Your task to perform on an android device: Is it going to rain this weekend? Image 0: 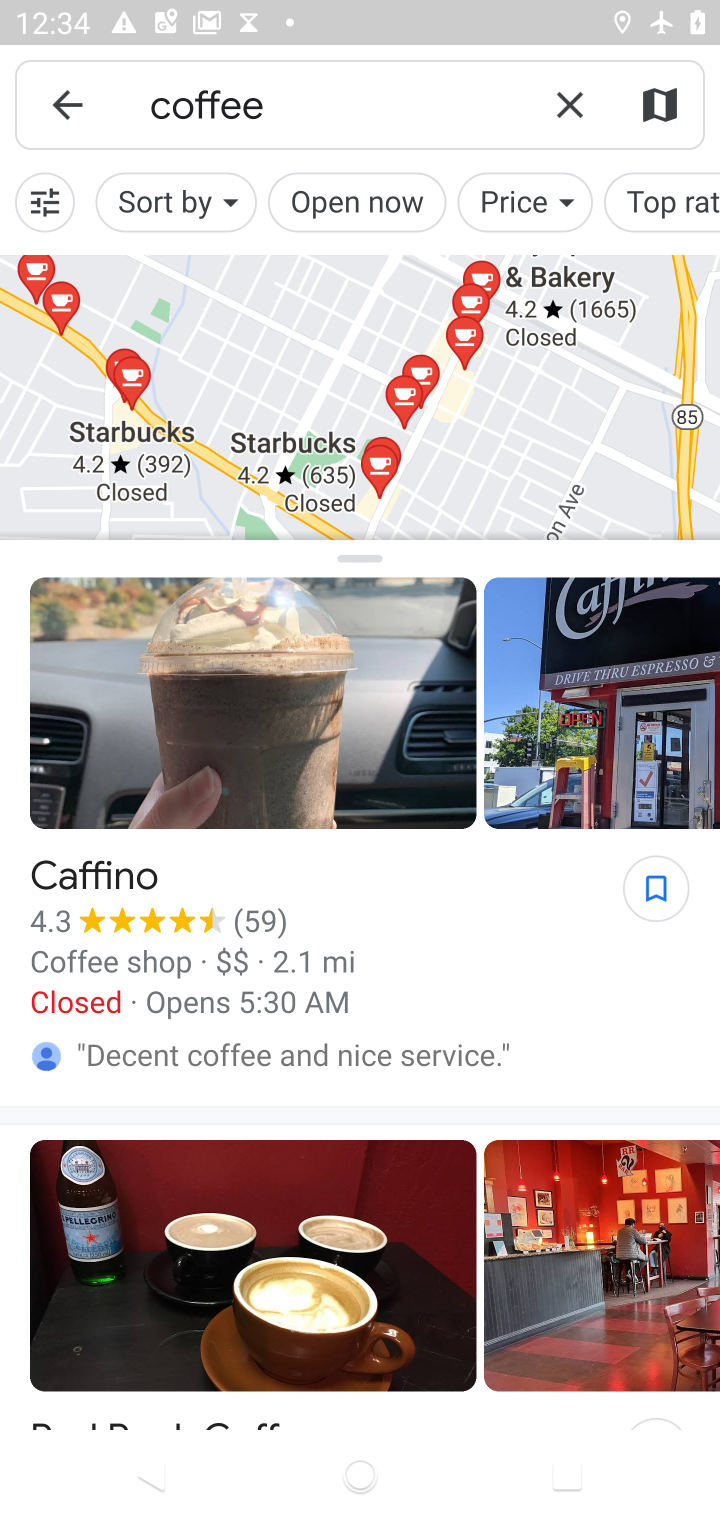
Step 0: press home button
Your task to perform on an android device: Is it going to rain this weekend? Image 1: 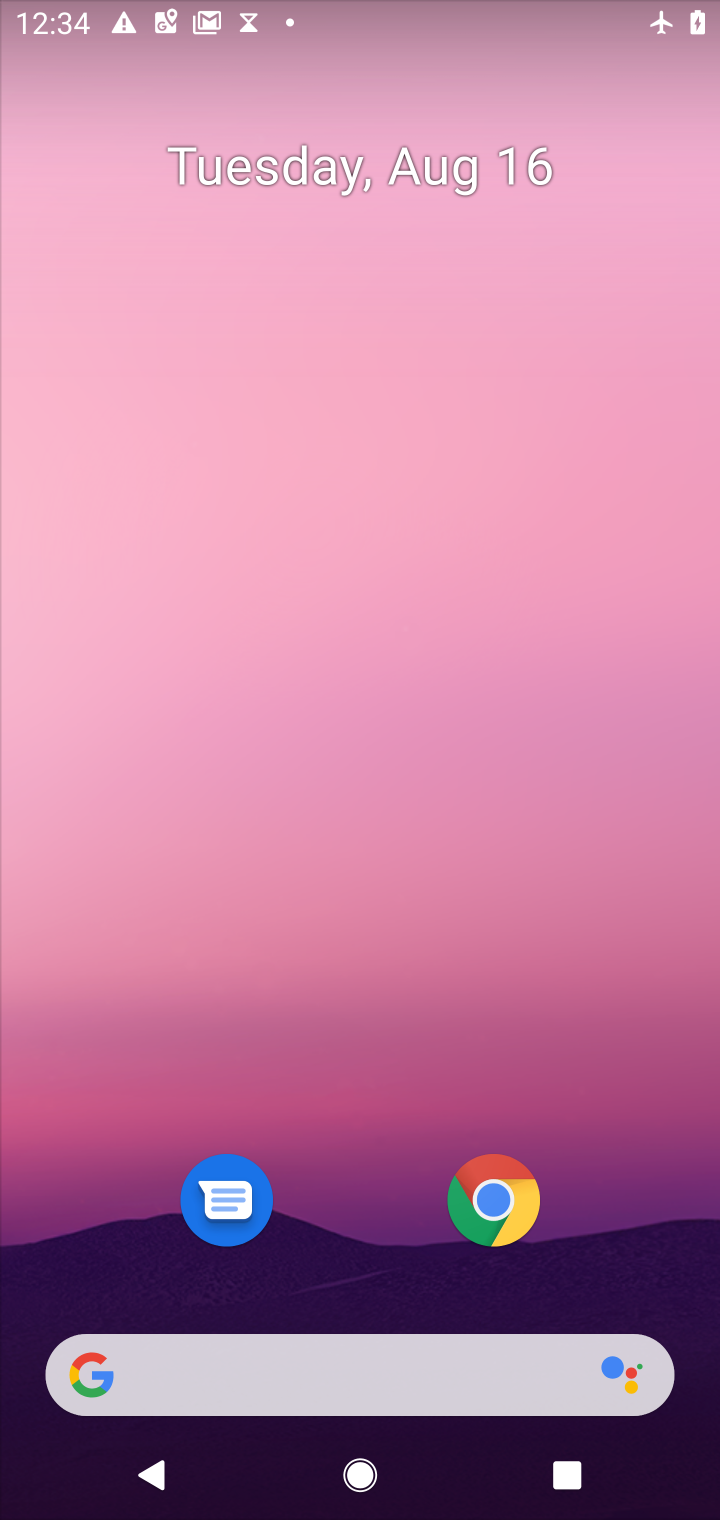
Step 1: drag from (413, 931) to (439, 304)
Your task to perform on an android device: Is it going to rain this weekend? Image 2: 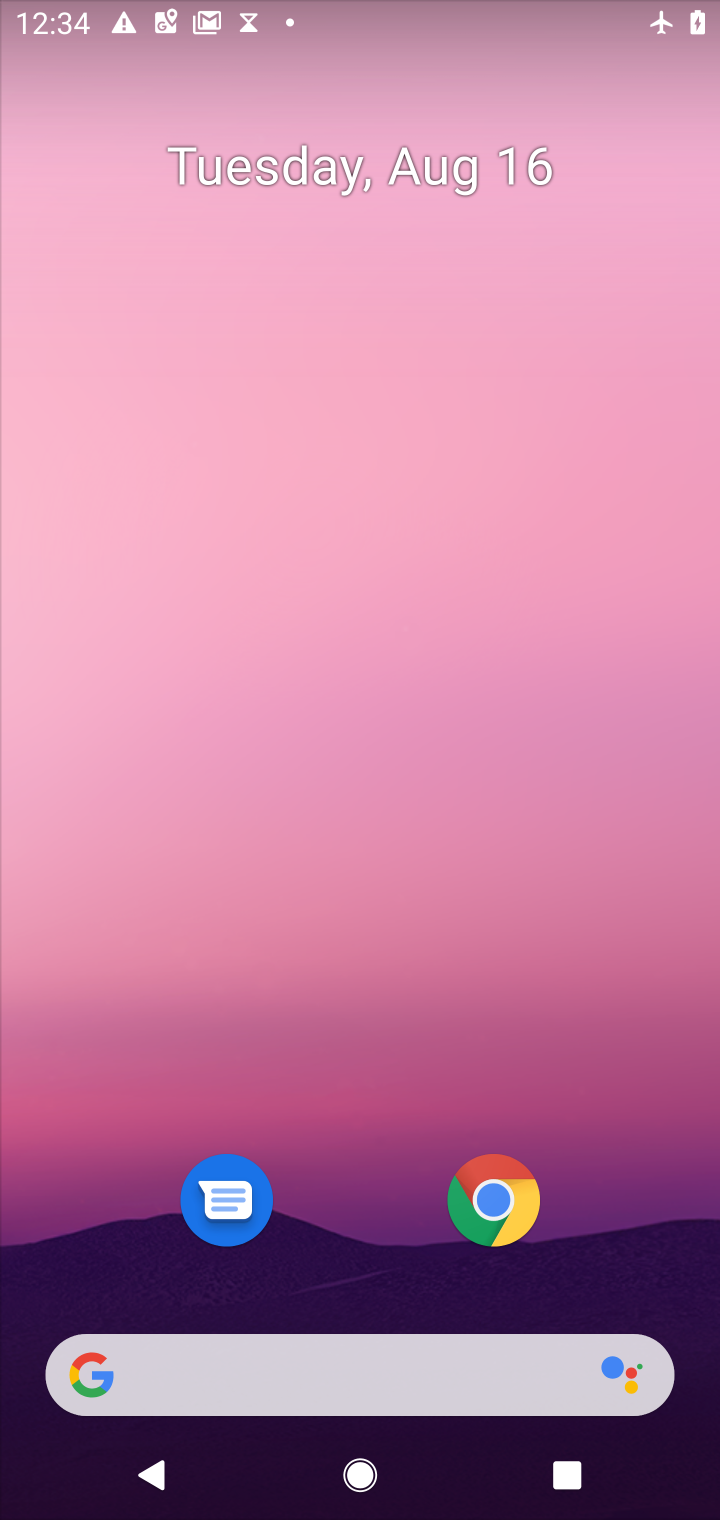
Step 2: drag from (357, 1114) to (408, 321)
Your task to perform on an android device: Is it going to rain this weekend? Image 3: 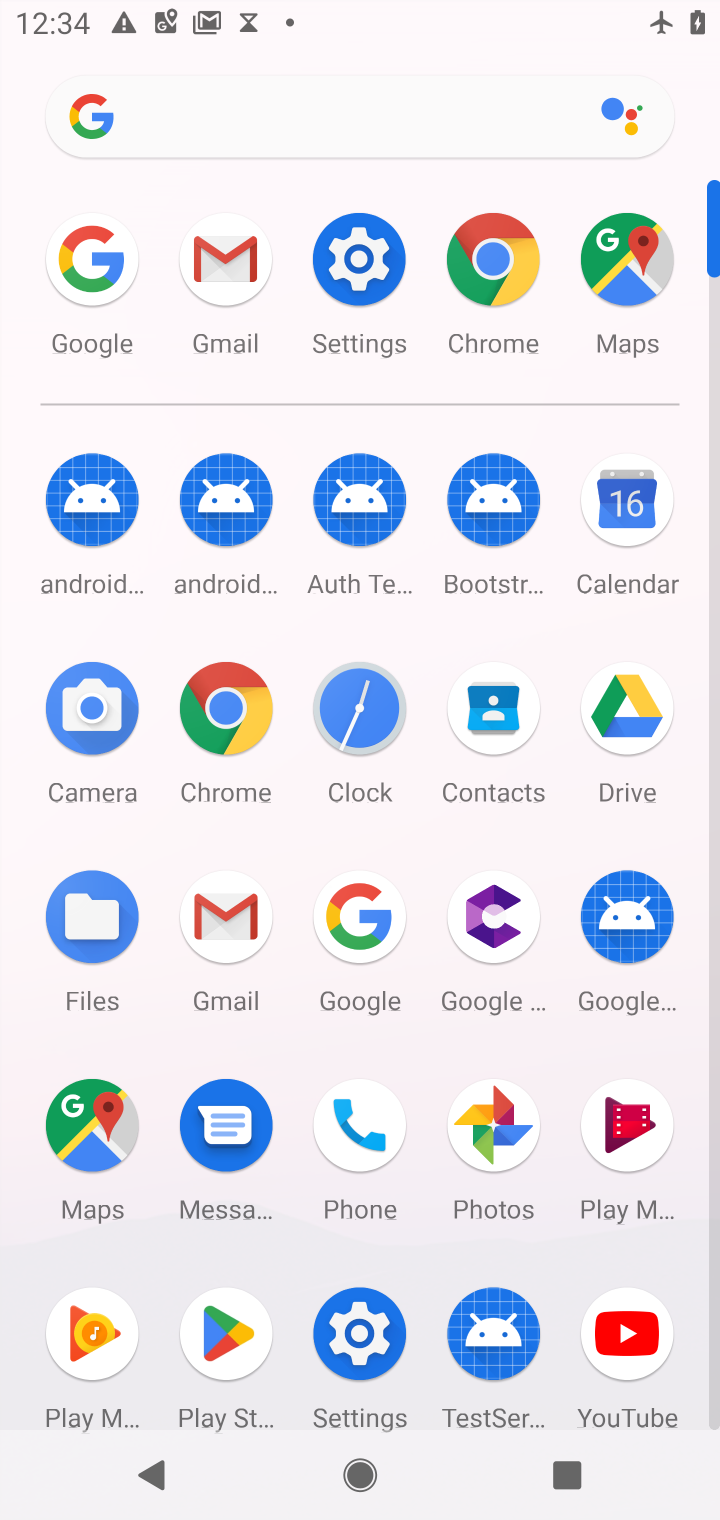
Step 3: click (115, 259)
Your task to perform on an android device: Is it going to rain this weekend? Image 4: 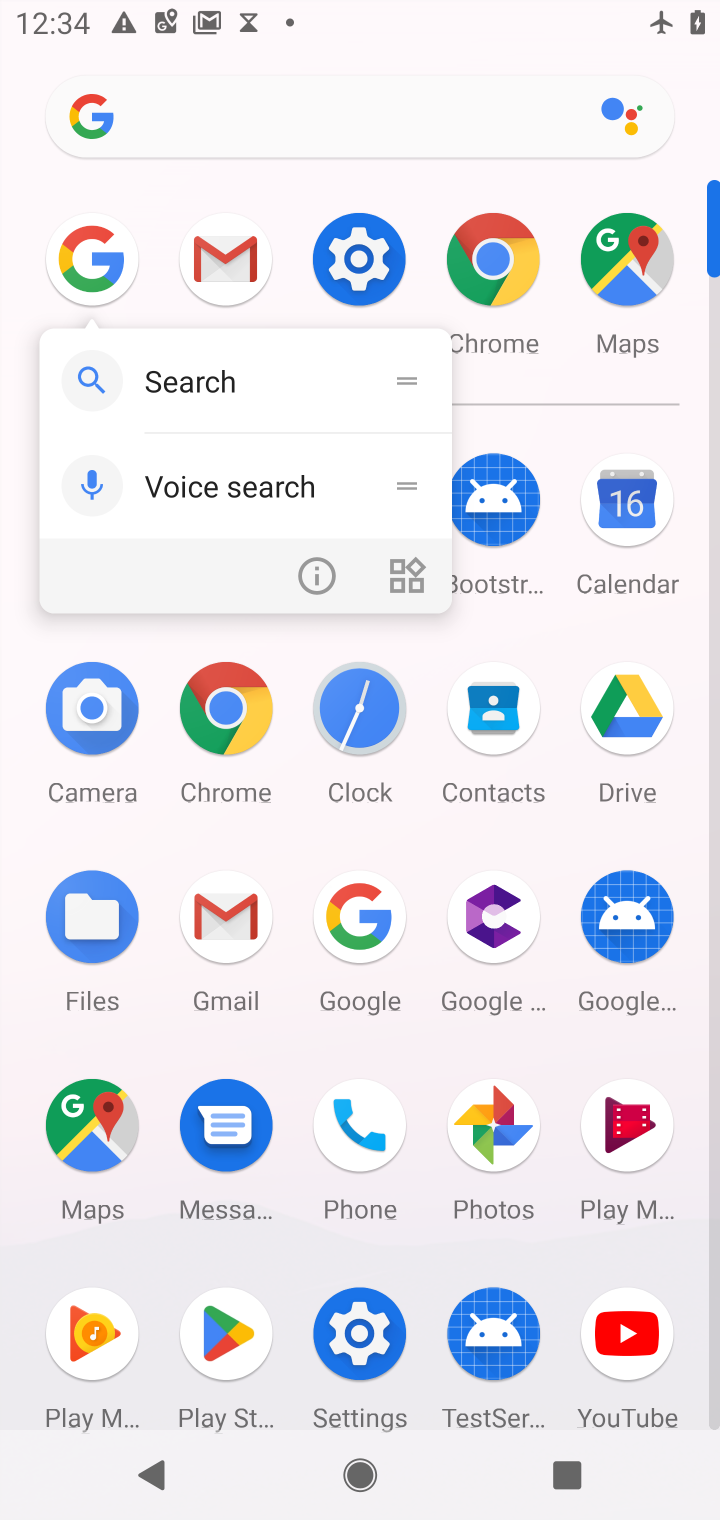
Step 4: click (115, 259)
Your task to perform on an android device: Is it going to rain this weekend? Image 5: 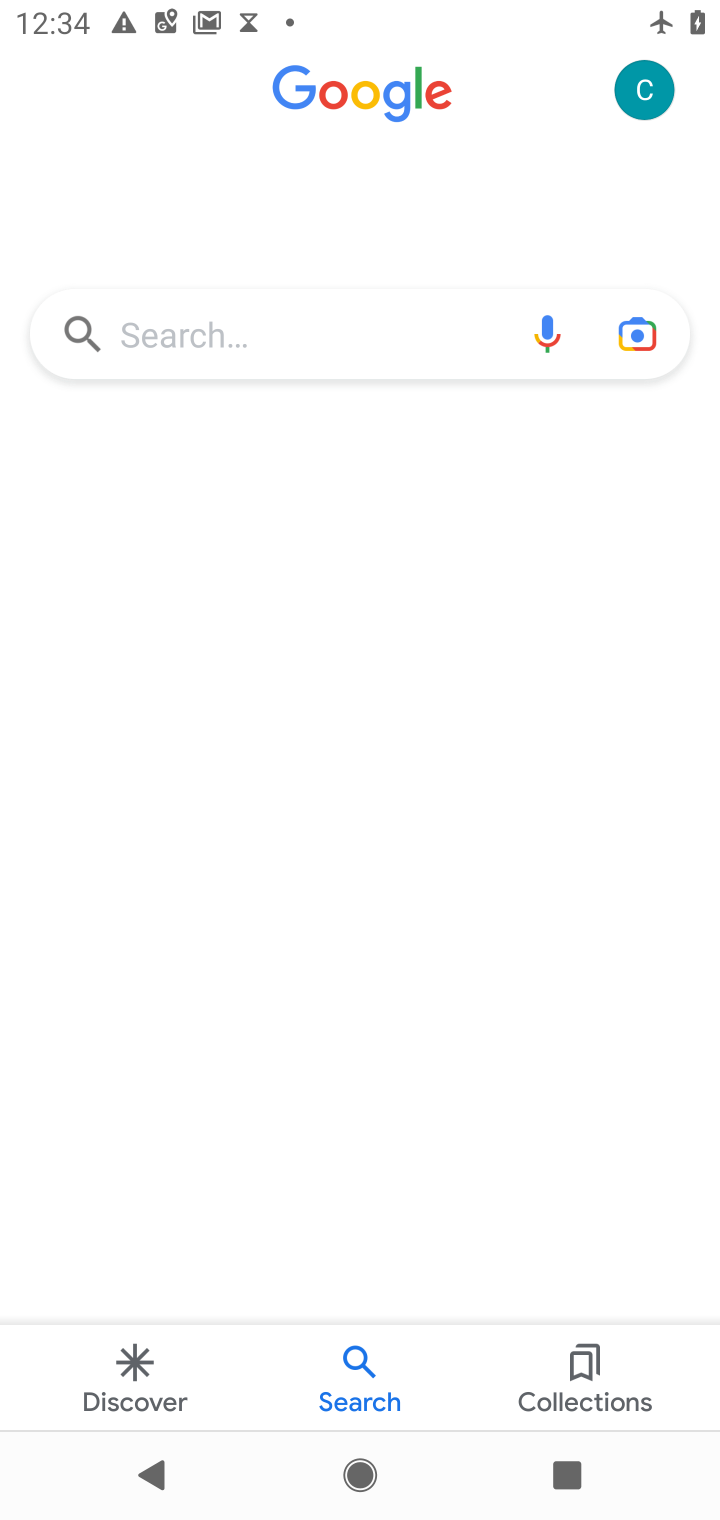
Step 5: click (237, 325)
Your task to perform on an android device: Is it going to rain this weekend? Image 6: 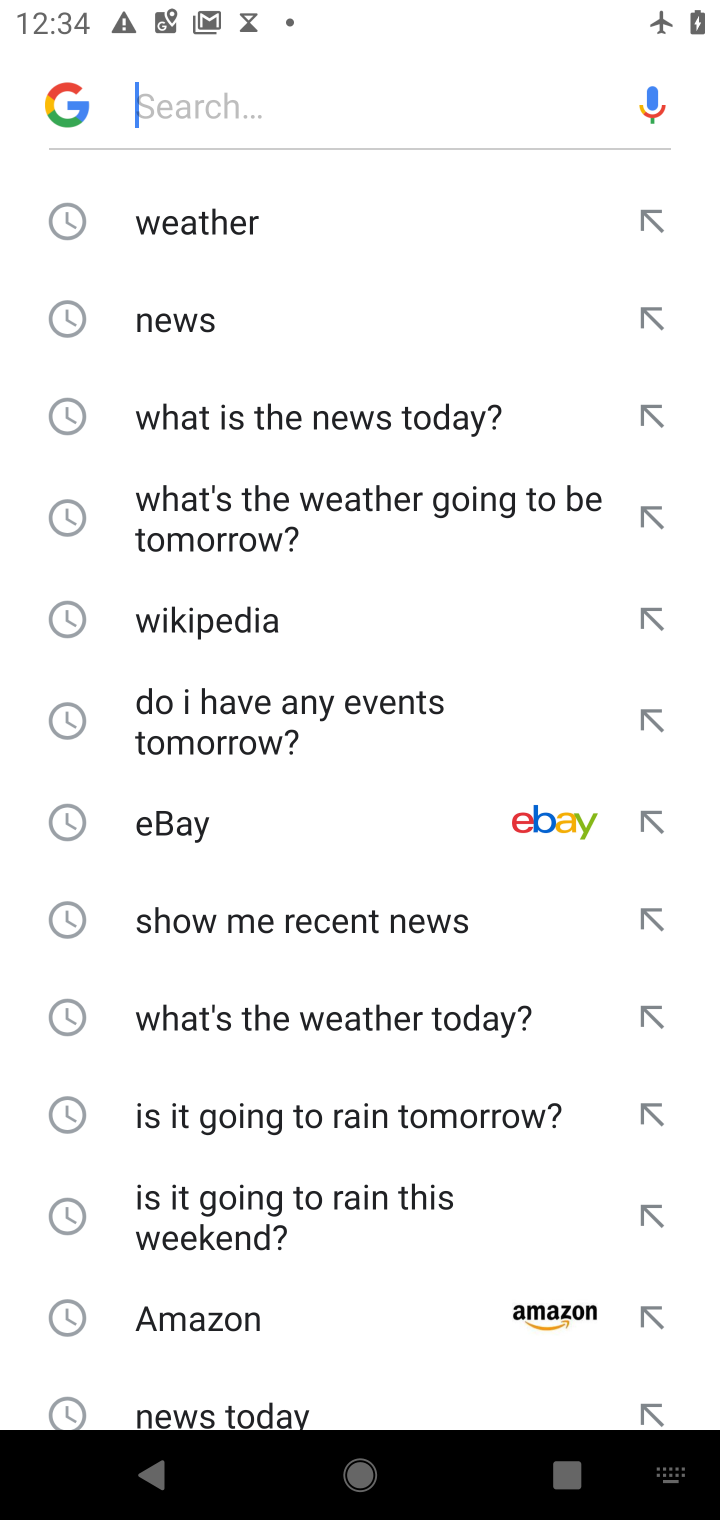
Step 6: click (223, 217)
Your task to perform on an android device: Is it going to rain this weekend? Image 7: 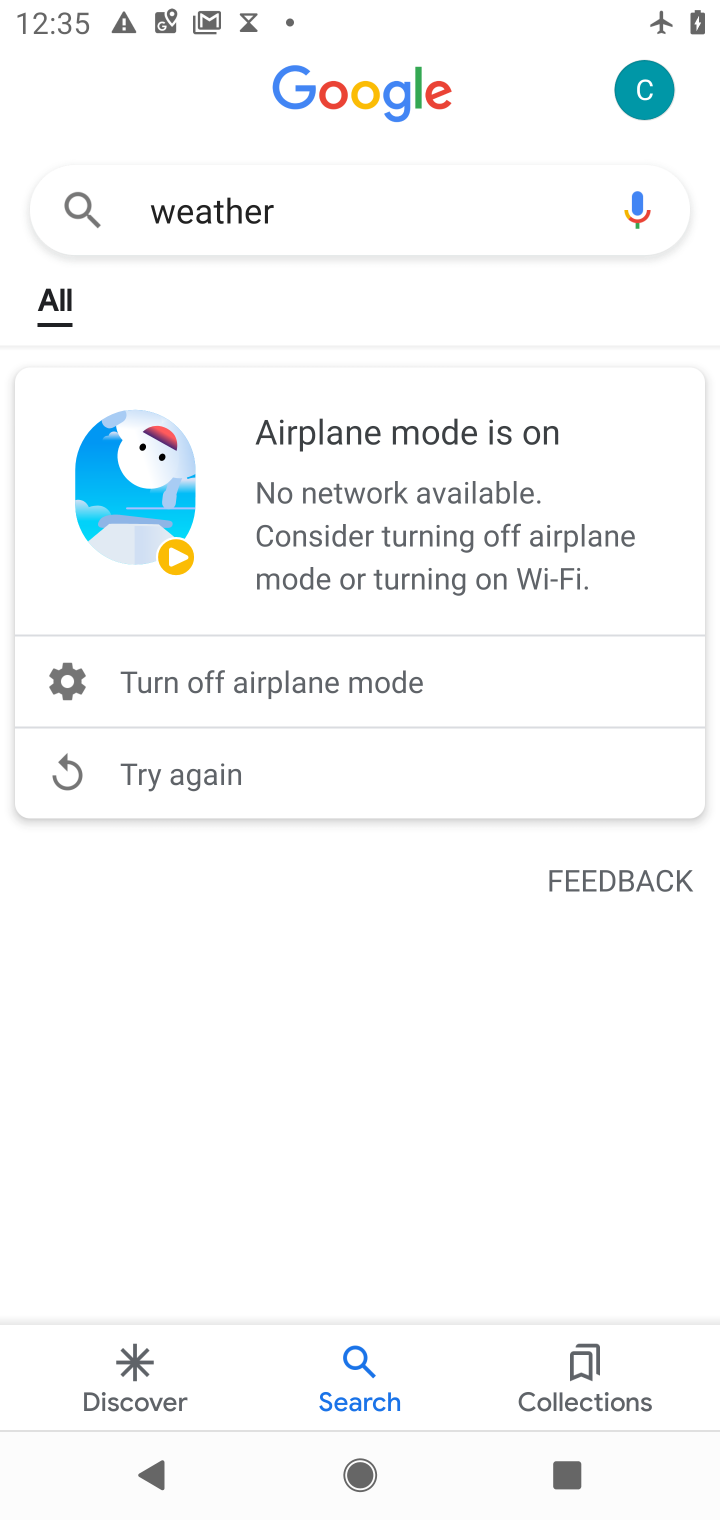
Step 7: task complete